Your task to perform on an android device: Go to settings Image 0: 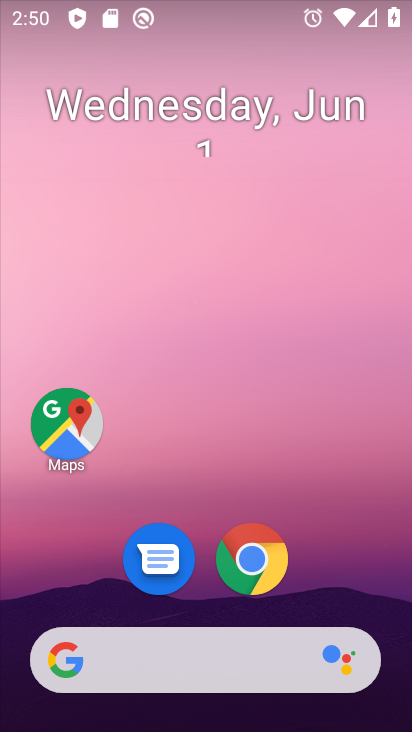
Step 0: drag from (349, 581) to (363, 22)
Your task to perform on an android device: Go to settings Image 1: 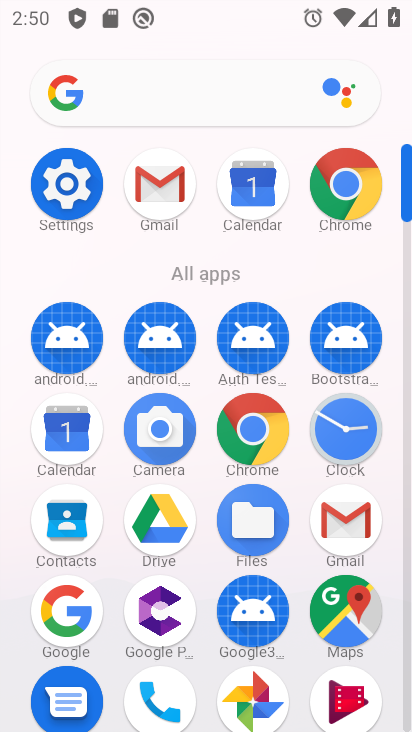
Step 1: click (75, 188)
Your task to perform on an android device: Go to settings Image 2: 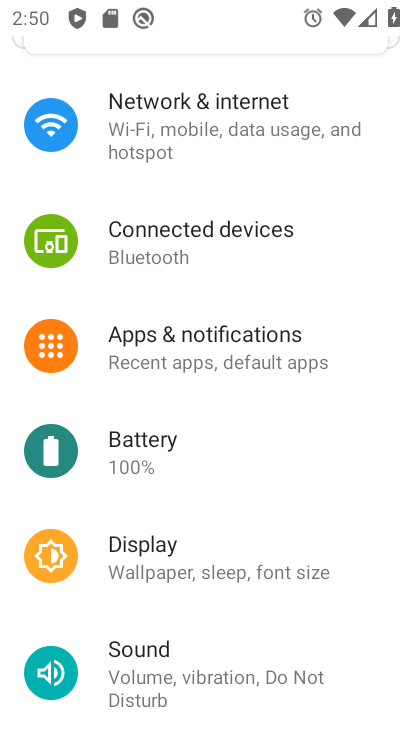
Step 2: task complete